Your task to perform on an android device: What's the weather going to be tomorrow? Image 0: 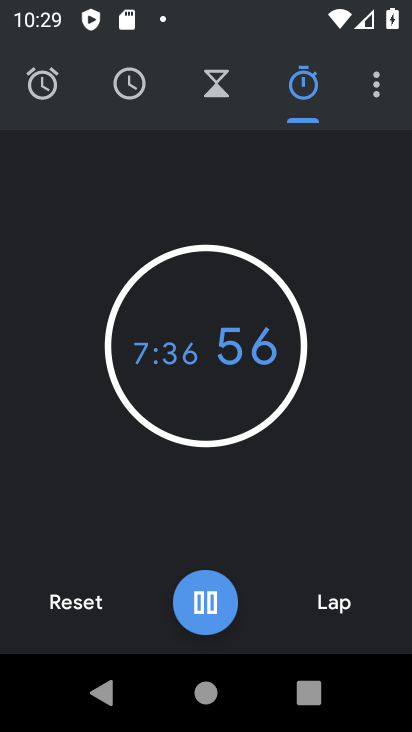
Step 0: press home button
Your task to perform on an android device: What's the weather going to be tomorrow? Image 1: 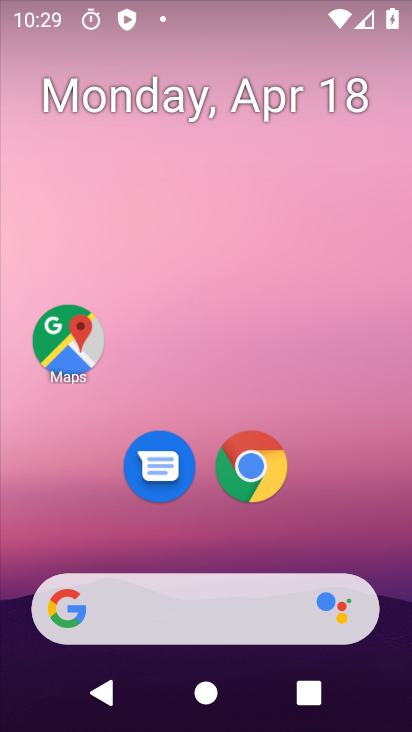
Step 1: drag from (161, 688) to (210, 26)
Your task to perform on an android device: What's the weather going to be tomorrow? Image 2: 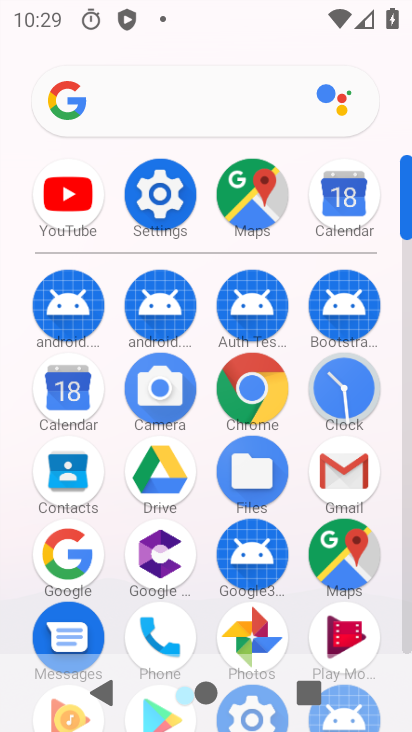
Step 2: click (74, 576)
Your task to perform on an android device: What's the weather going to be tomorrow? Image 3: 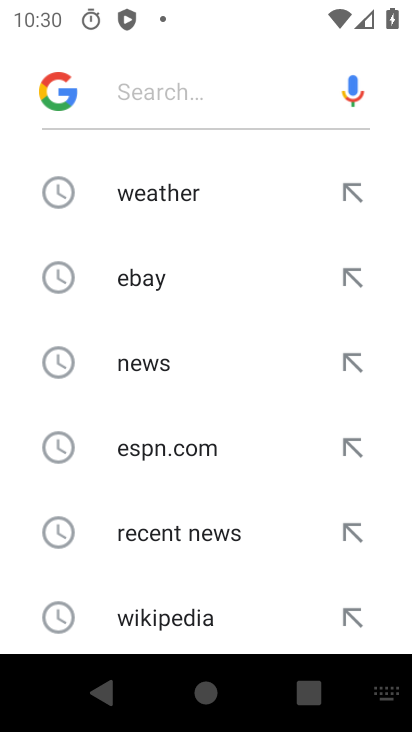
Step 3: click (177, 198)
Your task to perform on an android device: What's the weather going to be tomorrow? Image 4: 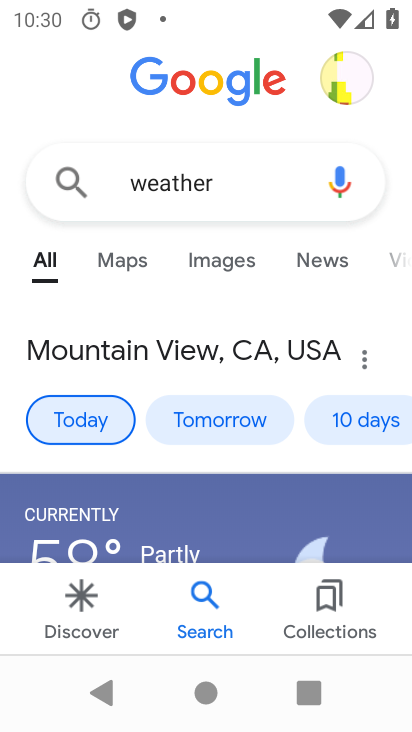
Step 4: click (208, 423)
Your task to perform on an android device: What's the weather going to be tomorrow? Image 5: 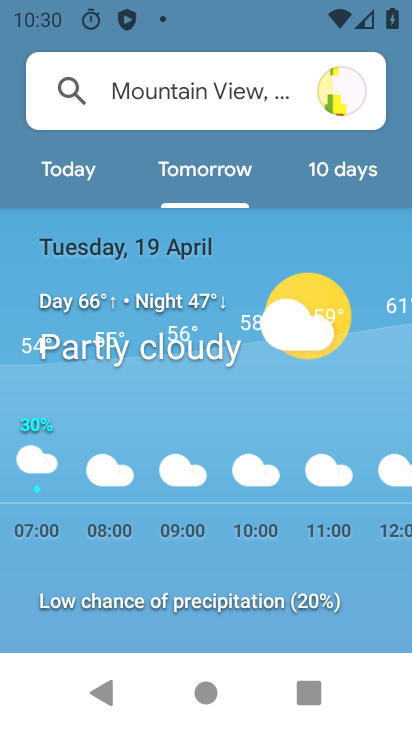
Step 5: task complete